Your task to perform on an android device: create a new album in the google photos Image 0: 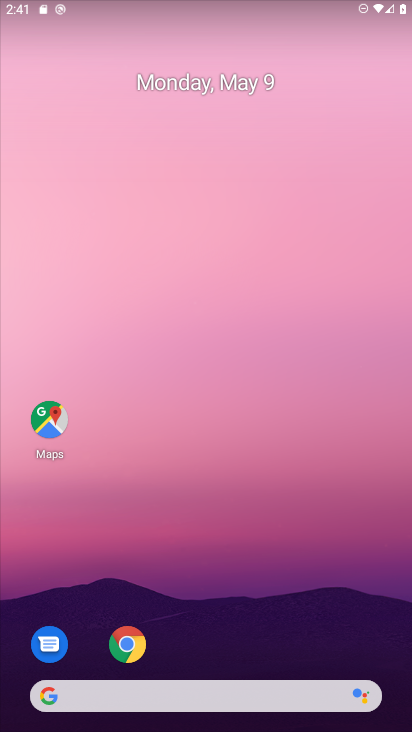
Step 0: drag from (239, 614) to (179, 46)
Your task to perform on an android device: create a new album in the google photos Image 1: 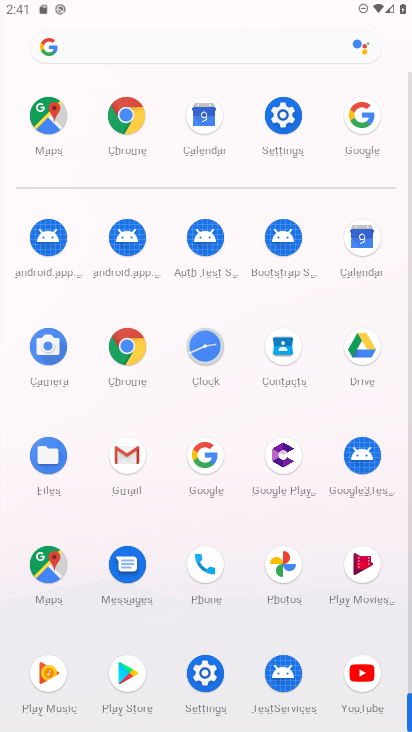
Step 1: drag from (230, 567) to (243, 233)
Your task to perform on an android device: create a new album in the google photos Image 2: 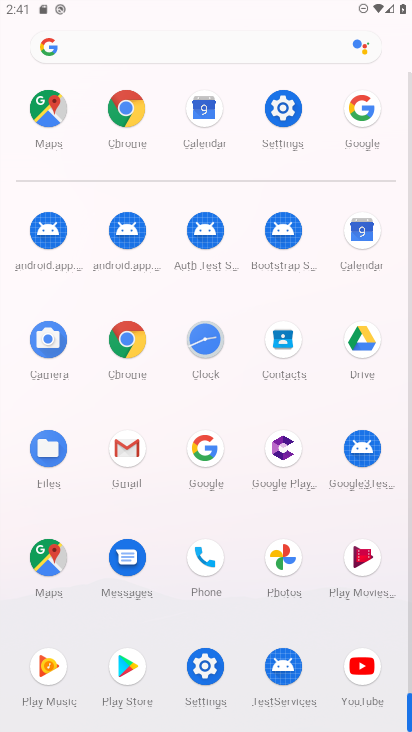
Step 2: click (279, 575)
Your task to perform on an android device: create a new album in the google photos Image 3: 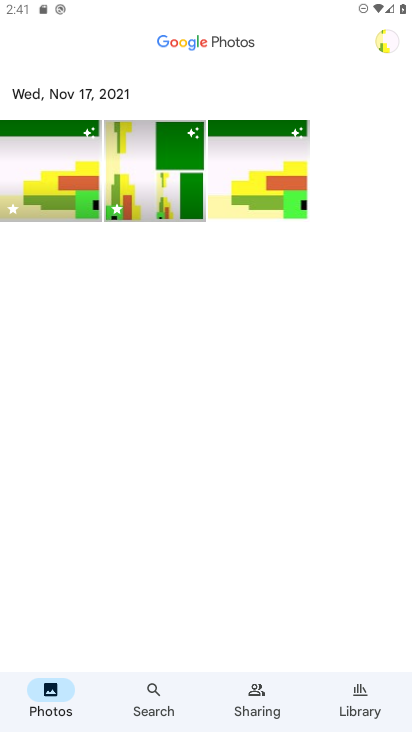
Step 3: click (49, 711)
Your task to perform on an android device: create a new album in the google photos Image 4: 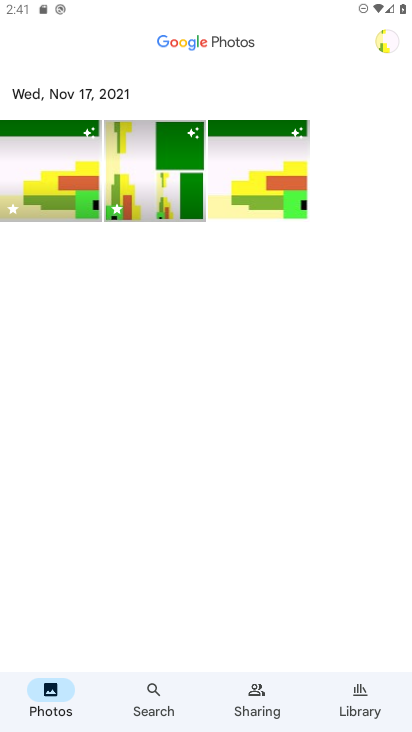
Step 4: click (274, 719)
Your task to perform on an android device: create a new album in the google photos Image 5: 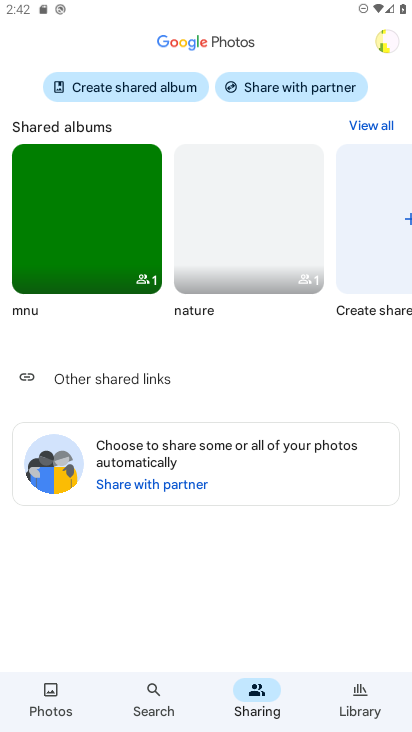
Step 5: click (359, 685)
Your task to perform on an android device: create a new album in the google photos Image 6: 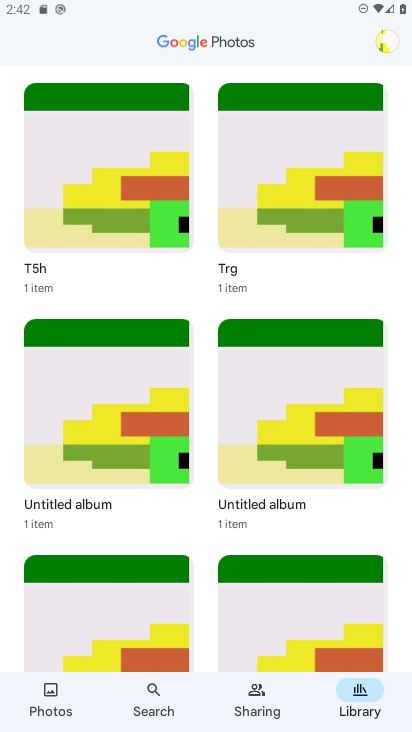
Step 6: drag from (253, 194) to (269, 731)
Your task to perform on an android device: create a new album in the google photos Image 7: 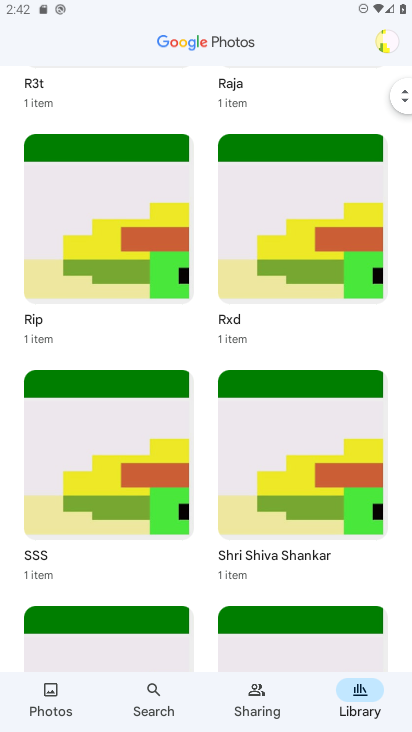
Step 7: drag from (212, 367) to (166, 688)
Your task to perform on an android device: create a new album in the google photos Image 8: 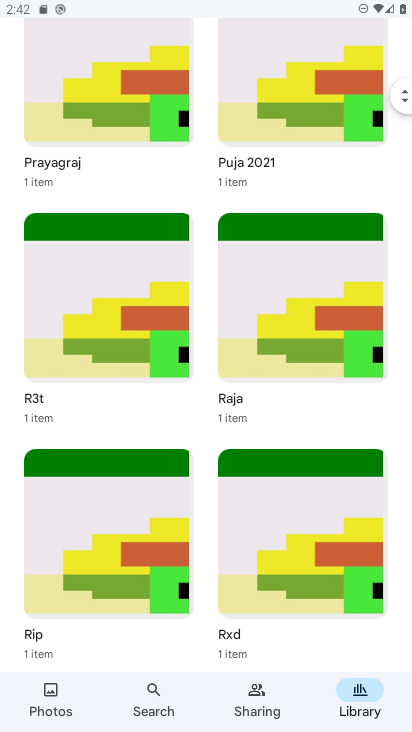
Step 8: drag from (189, 421) to (142, 720)
Your task to perform on an android device: create a new album in the google photos Image 9: 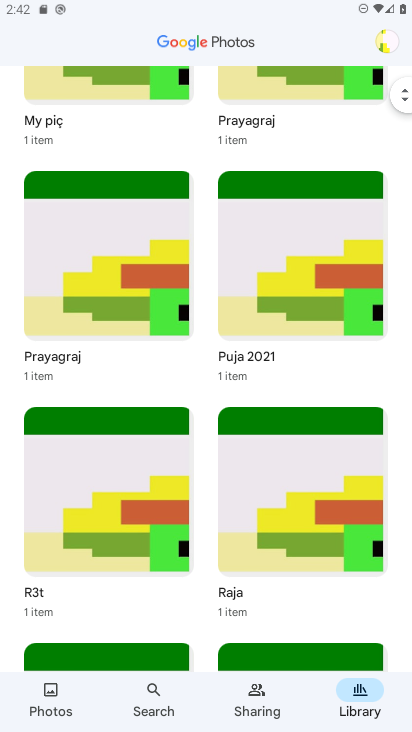
Step 9: drag from (260, 193) to (256, 730)
Your task to perform on an android device: create a new album in the google photos Image 10: 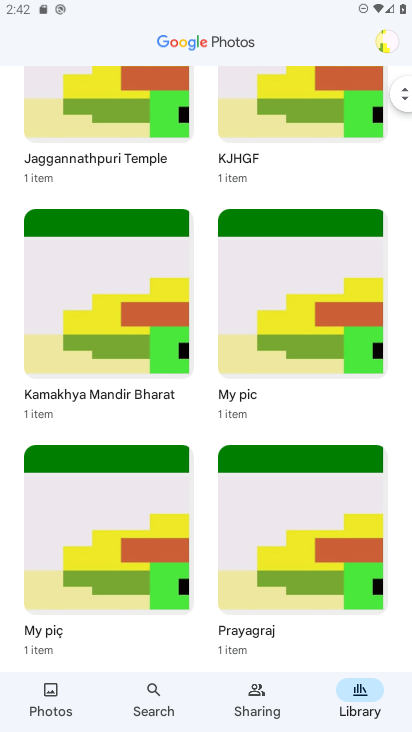
Step 10: drag from (220, 304) to (216, 689)
Your task to perform on an android device: create a new album in the google photos Image 11: 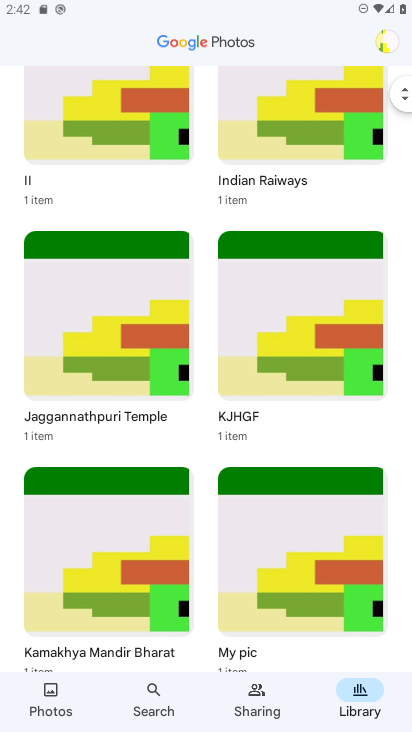
Step 11: drag from (234, 298) to (223, 660)
Your task to perform on an android device: create a new album in the google photos Image 12: 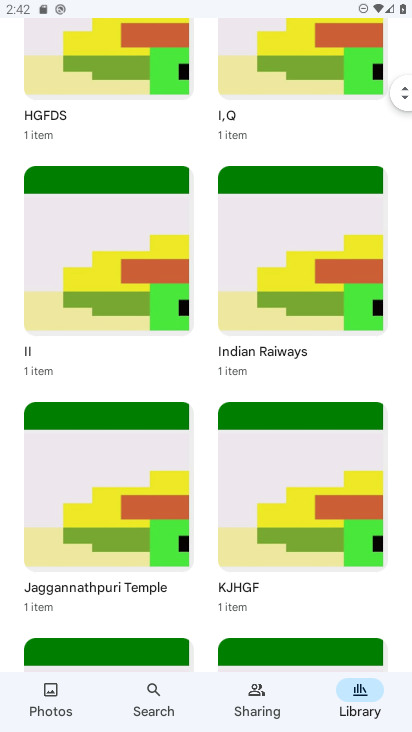
Step 12: drag from (239, 206) to (240, 725)
Your task to perform on an android device: create a new album in the google photos Image 13: 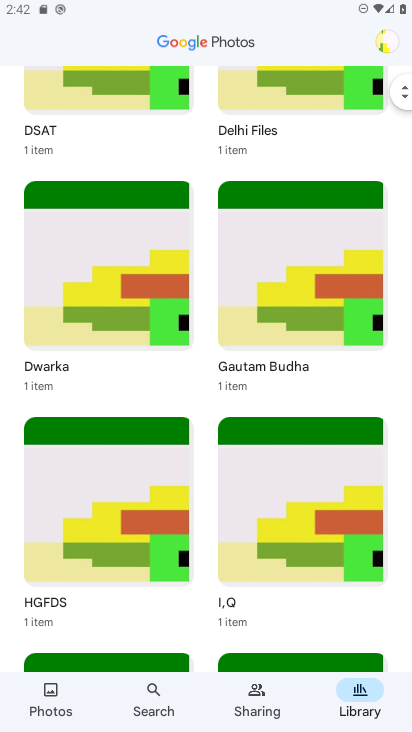
Step 13: drag from (243, 354) to (321, 697)
Your task to perform on an android device: create a new album in the google photos Image 14: 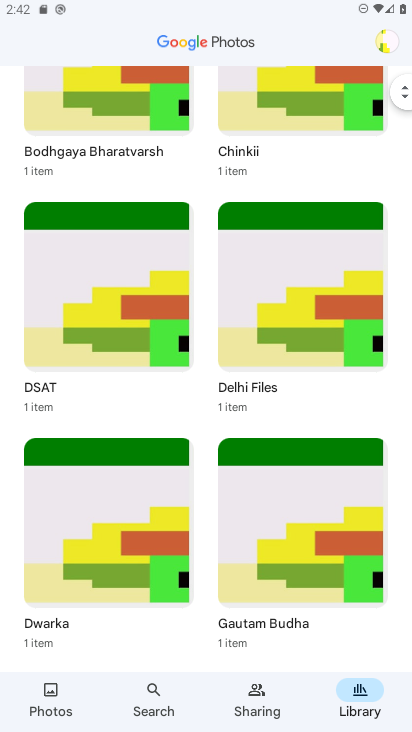
Step 14: drag from (291, 292) to (275, 708)
Your task to perform on an android device: create a new album in the google photos Image 15: 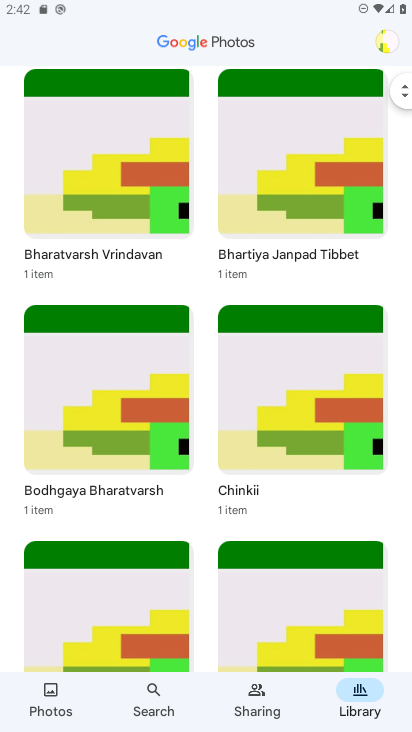
Step 15: drag from (256, 250) to (253, 728)
Your task to perform on an android device: create a new album in the google photos Image 16: 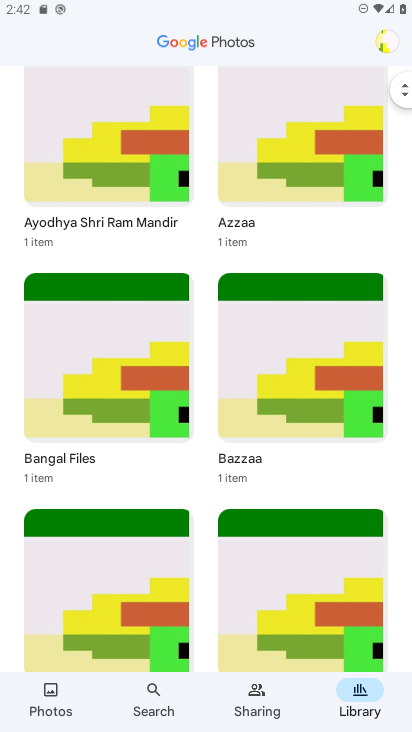
Step 16: drag from (263, 221) to (202, 665)
Your task to perform on an android device: create a new album in the google photos Image 17: 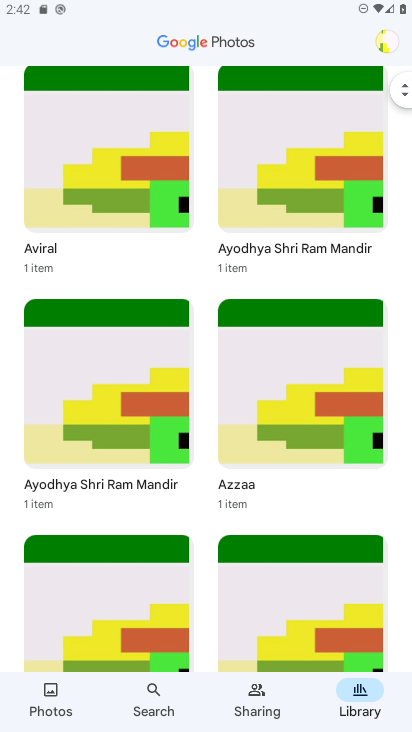
Step 17: drag from (222, 171) to (222, 723)
Your task to perform on an android device: create a new album in the google photos Image 18: 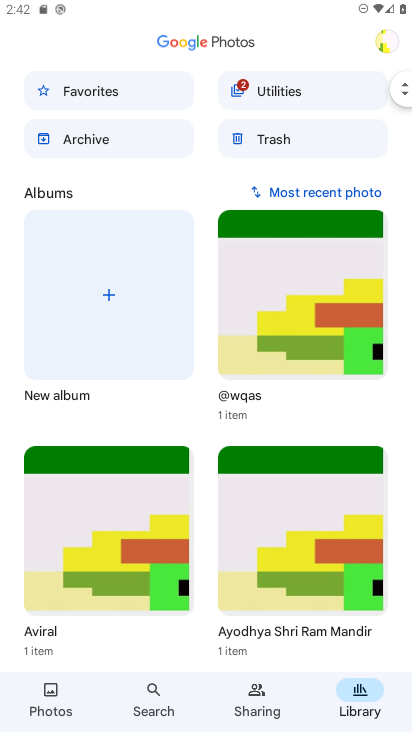
Step 18: drag from (300, 354) to (209, 730)
Your task to perform on an android device: create a new album in the google photos Image 19: 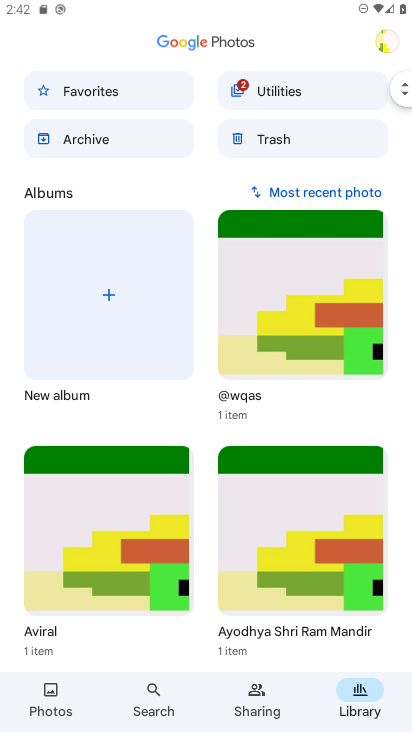
Step 19: click (106, 297)
Your task to perform on an android device: create a new album in the google photos Image 20: 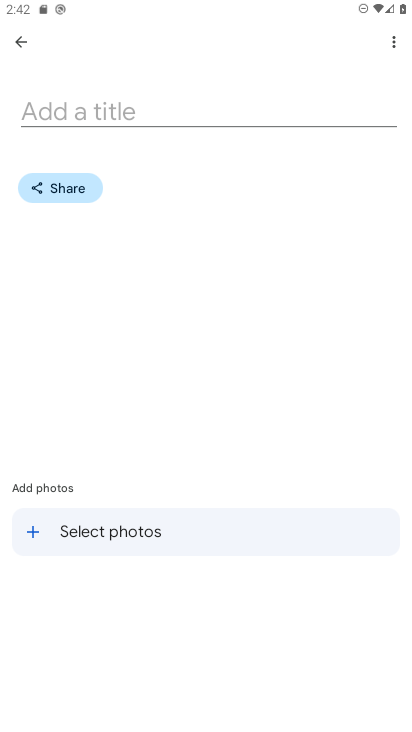
Step 20: click (102, 106)
Your task to perform on an android device: create a new album in the google photos Image 21: 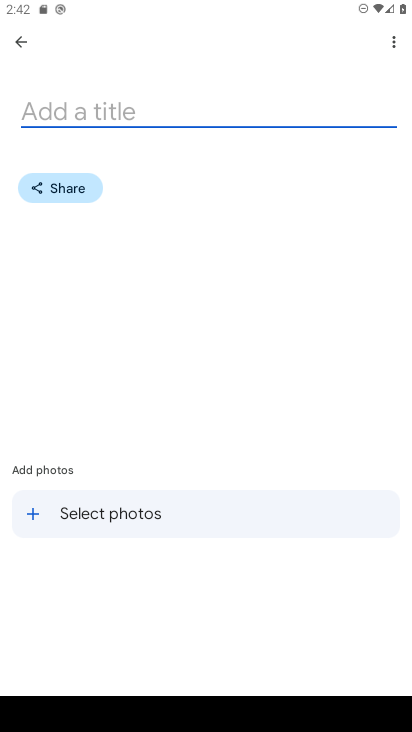
Step 21: type "Tarun "
Your task to perform on an android device: create a new album in the google photos Image 22: 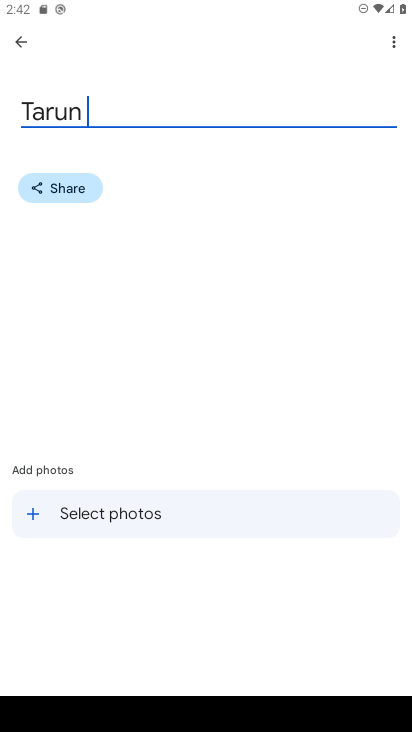
Step 22: click (104, 520)
Your task to perform on an android device: create a new album in the google photos Image 23: 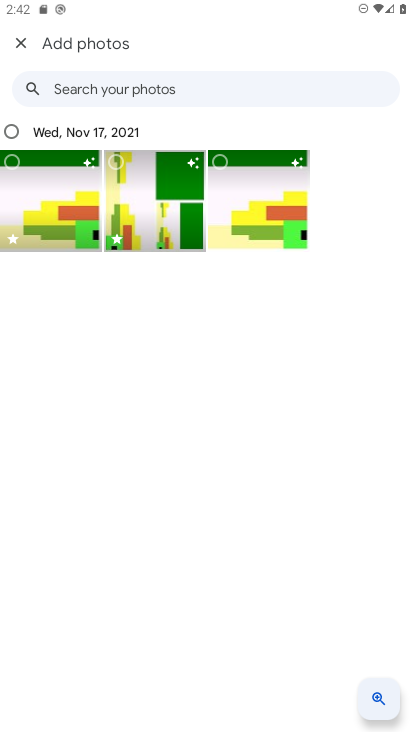
Step 23: click (12, 163)
Your task to perform on an android device: create a new album in the google photos Image 24: 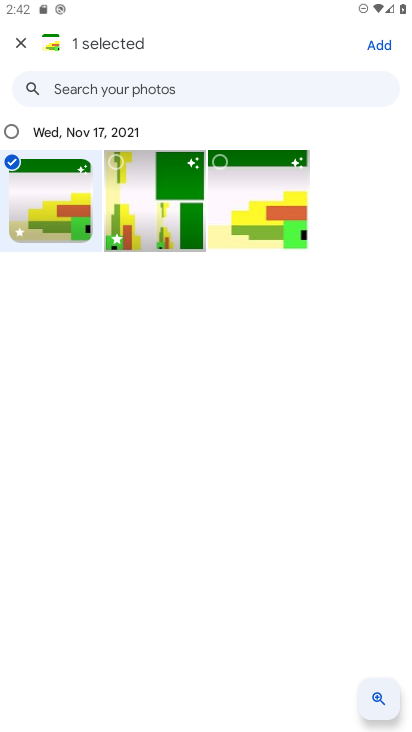
Step 24: click (12, 163)
Your task to perform on an android device: create a new album in the google photos Image 25: 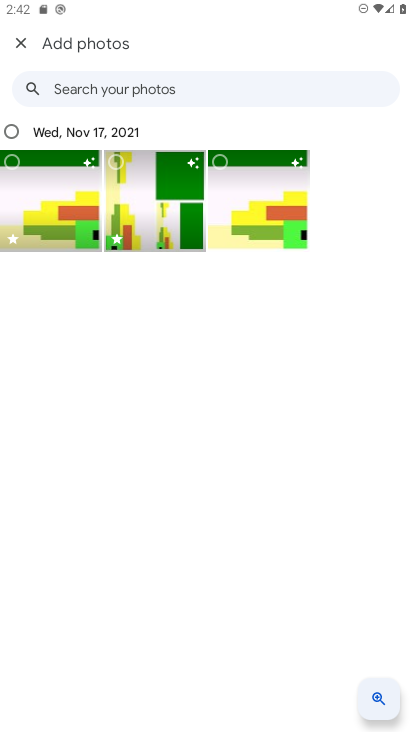
Step 25: click (114, 167)
Your task to perform on an android device: create a new album in the google photos Image 26: 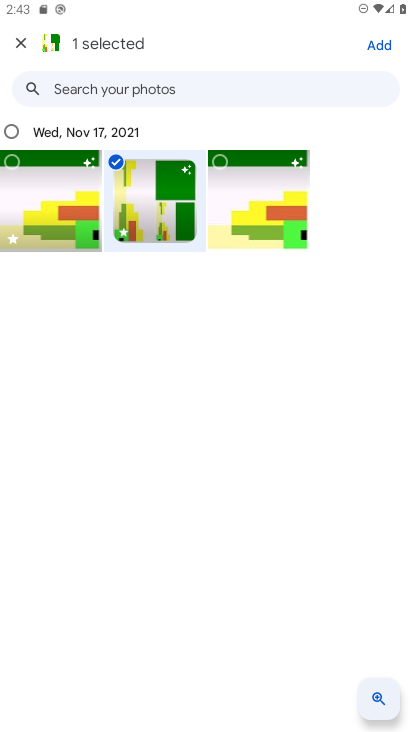
Step 26: click (371, 39)
Your task to perform on an android device: create a new album in the google photos Image 27: 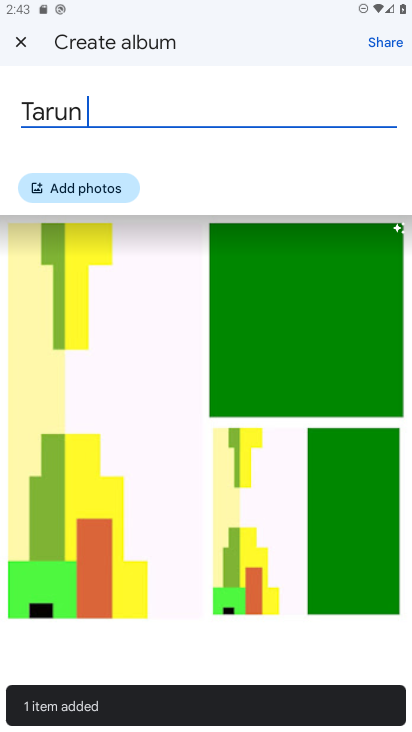
Step 27: task complete